Your task to perform on an android device: Open network settings Image 0: 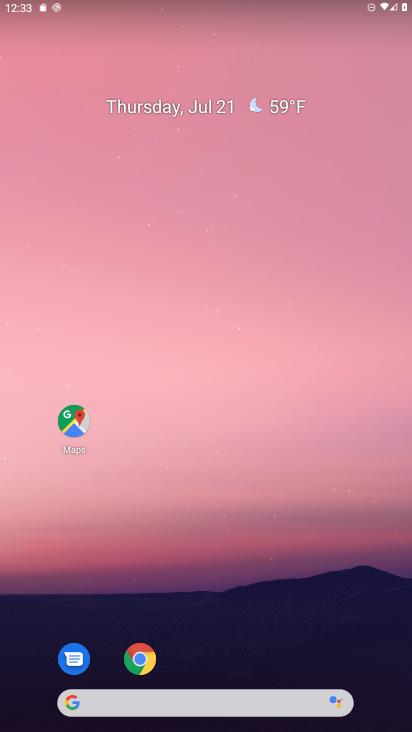
Step 0: drag from (41, 622) to (284, 108)
Your task to perform on an android device: Open network settings Image 1: 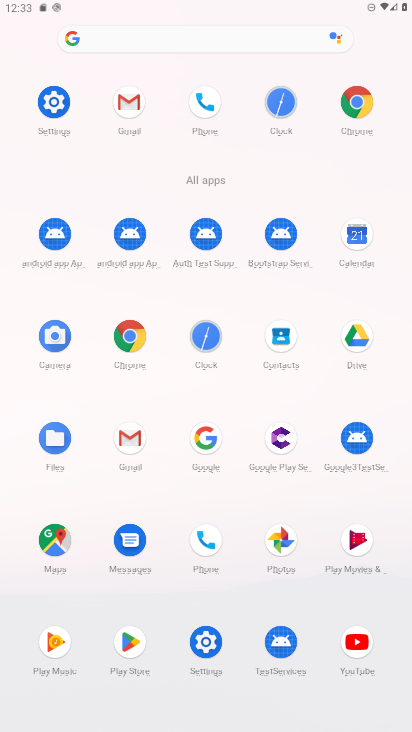
Step 1: click (42, 100)
Your task to perform on an android device: Open network settings Image 2: 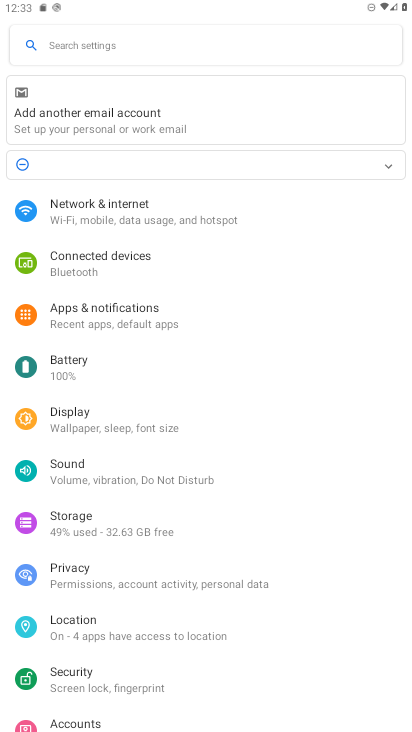
Step 2: click (104, 225)
Your task to perform on an android device: Open network settings Image 3: 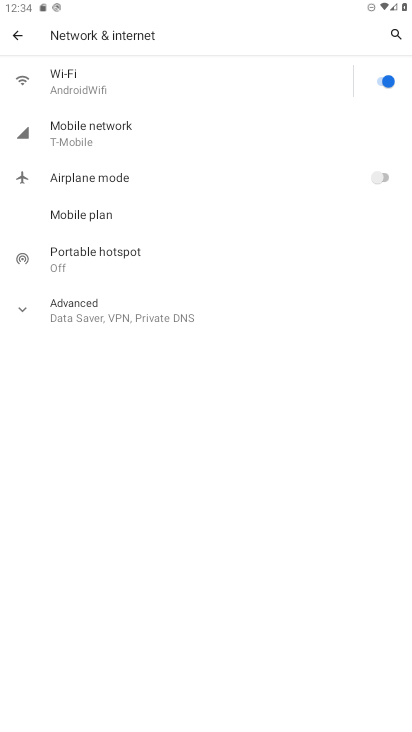
Step 3: click (70, 139)
Your task to perform on an android device: Open network settings Image 4: 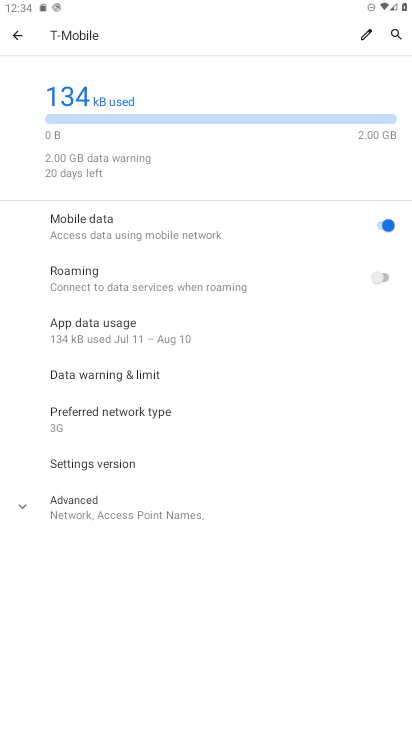
Step 4: task complete